Your task to perform on an android device: Search for Italian restaurants on Maps Image 0: 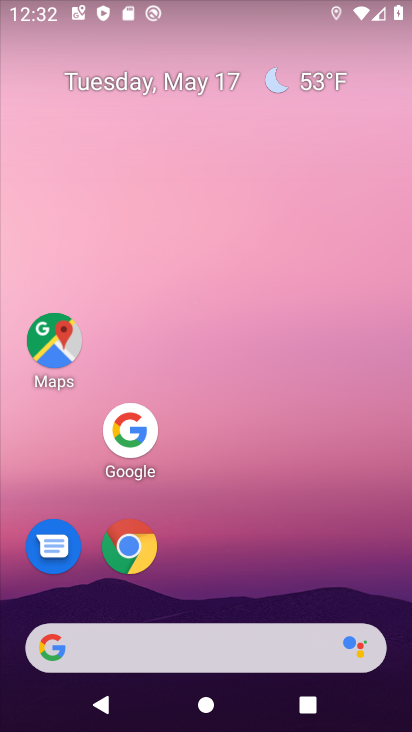
Step 0: click (132, 439)
Your task to perform on an android device: Search for Italian restaurants on Maps Image 1: 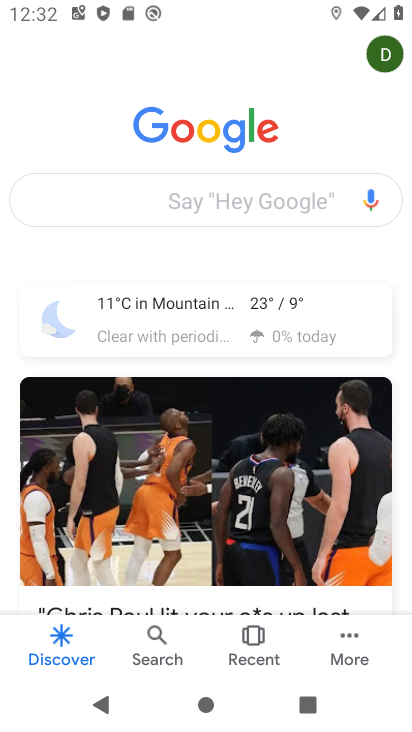
Step 1: click (195, 204)
Your task to perform on an android device: Search for Italian restaurants on Maps Image 2: 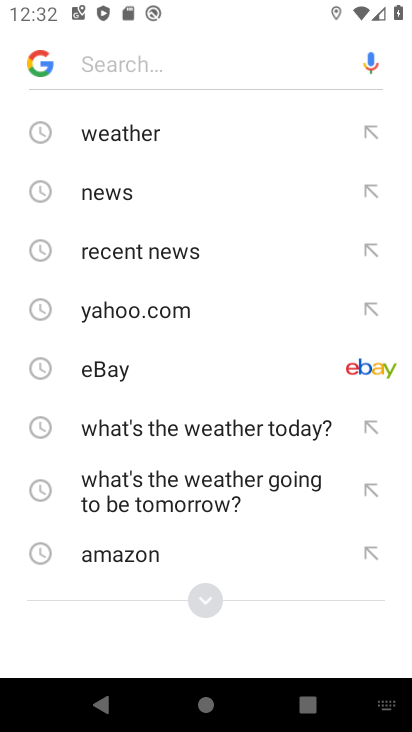
Step 2: type "italian restaurents"
Your task to perform on an android device: Search for Italian restaurants on Maps Image 3: 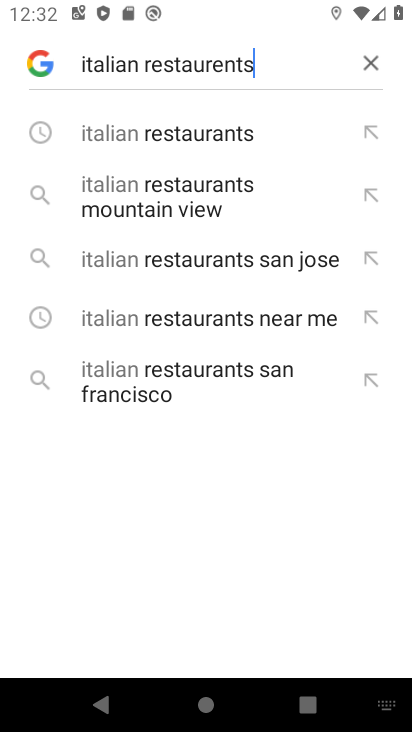
Step 3: click (190, 138)
Your task to perform on an android device: Search for Italian restaurants on Maps Image 4: 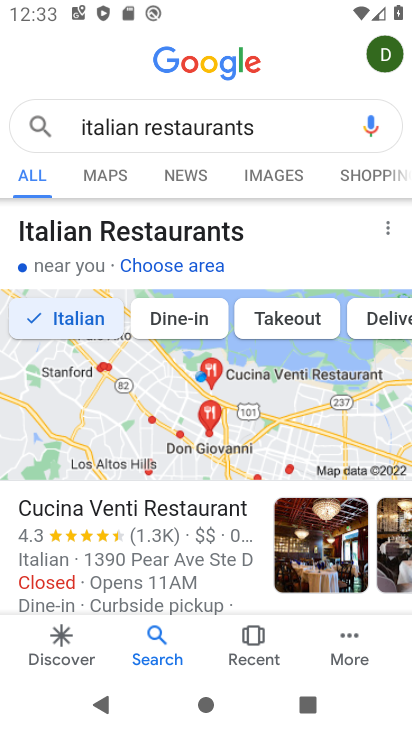
Step 4: task complete